Your task to perform on an android device: Go to display settings Image 0: 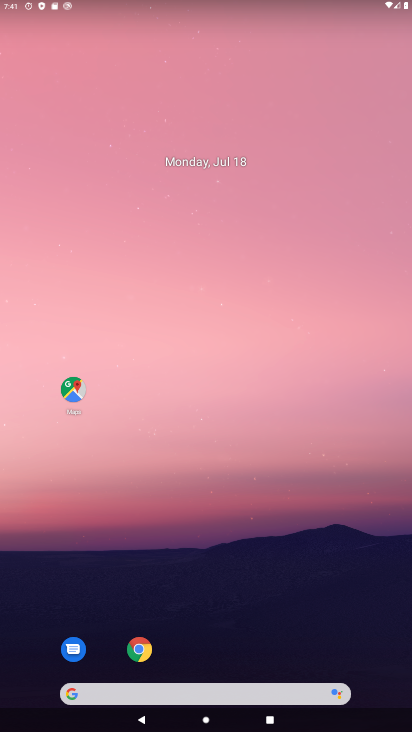
Step 0: drag from (346, 623) to (194, 119)
Your task to perform on an android device: Go to display settings Image 1: 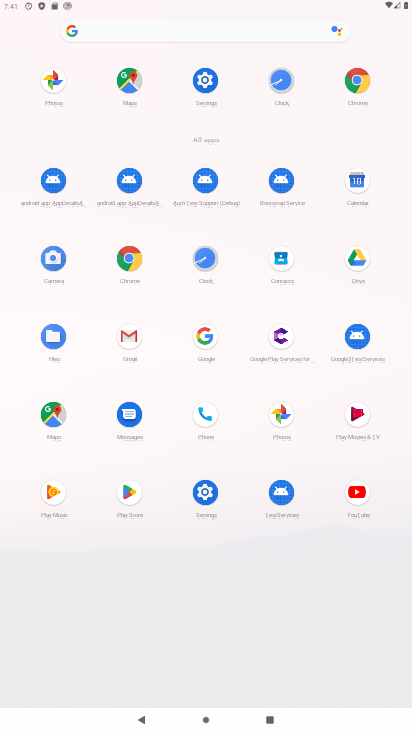
Step 1: click (204, 78)
Your task to perform on an android device: Go to display settings Image 2: 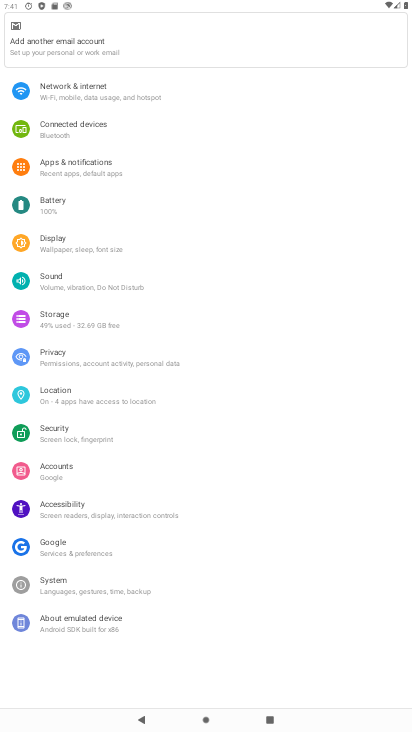
Step 2: click (67, 248)
Your task to perform on an android device: Go to display settings Image 3: 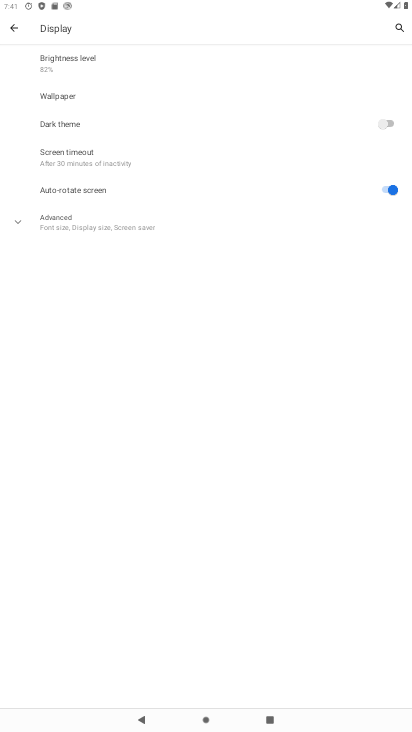
Step 3: task complete